Your task to perform on an android device: open app "McDonald's" Image 0: 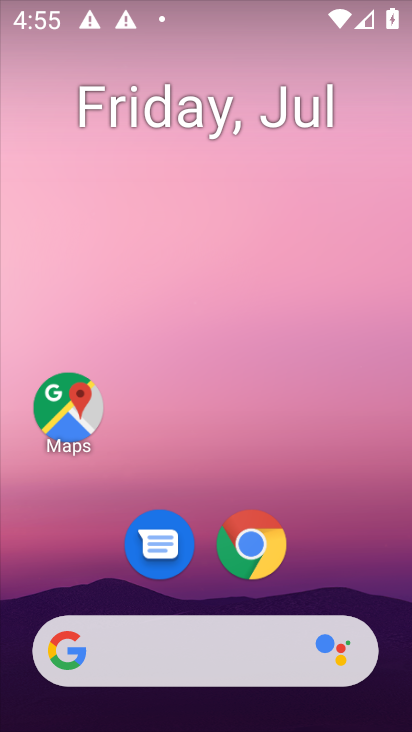
Step 0: drag from (160, 532) to (225, 28)
Your task to perform on an android device: open app "McDonald's" Image 1: 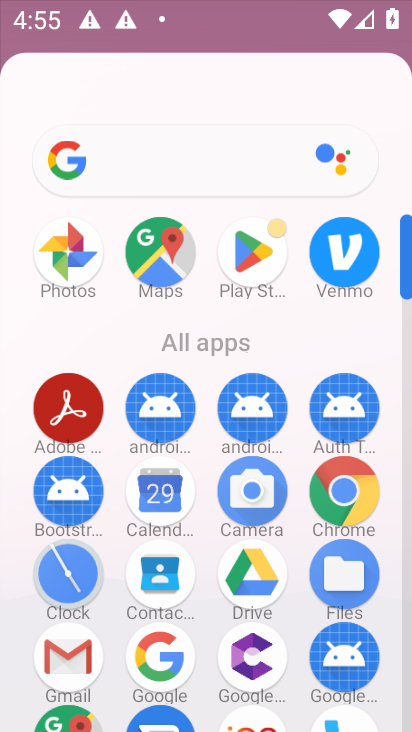
Step 1: drag from (236, 438) to (147, 24)
Your task to perform on an android device: open app "McDonald's" Image 2: 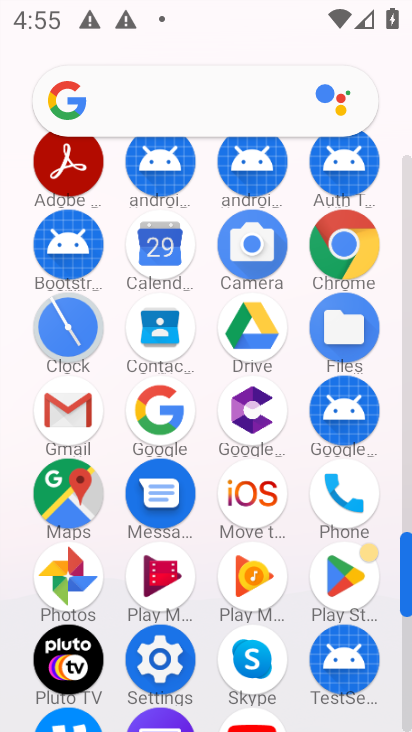
Step 2: drag from (118, 348) to (110, 107)
Your task to perform on an android device: open app "McDonald's" Image 3: 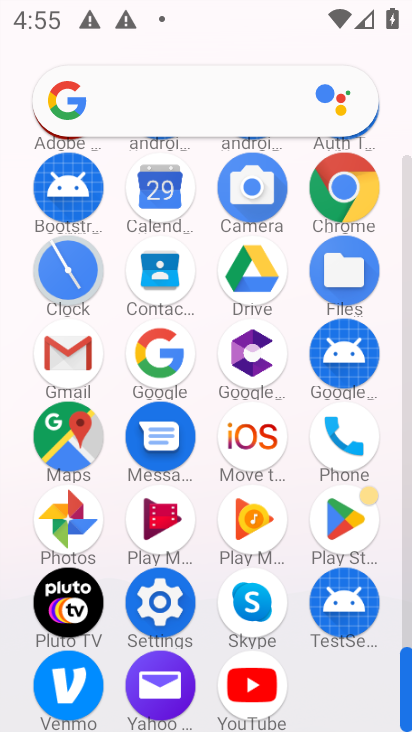
Step 3: drag from (214, 505) to (161, 5)
Your task to perform on an android device: open app "McDonald's" Image 4: 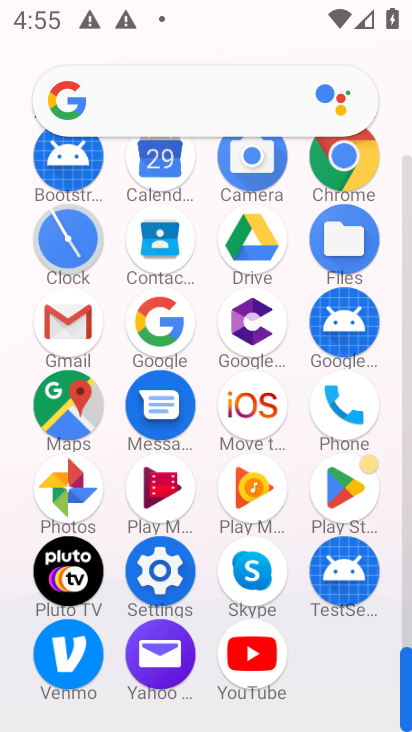
Step 4: drag from (171, 507) to (171, 149)
Your task to perform on an android device: open app "McDonald's" Image 5: 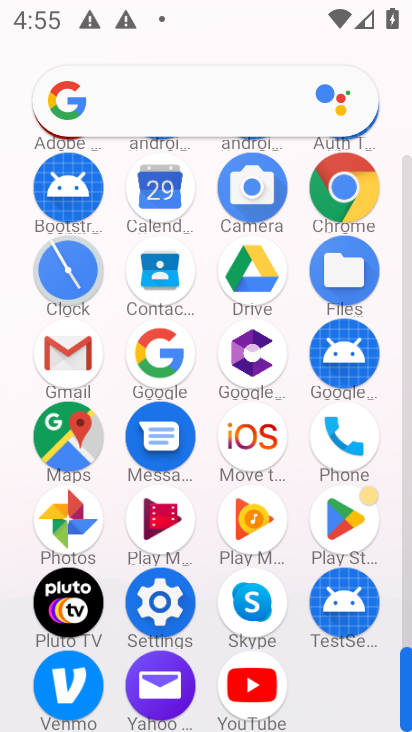
Step 5: drag from (188, 326) to (198, 699)
Your task to perform on an android device: open app "McDonald's" Image 6: 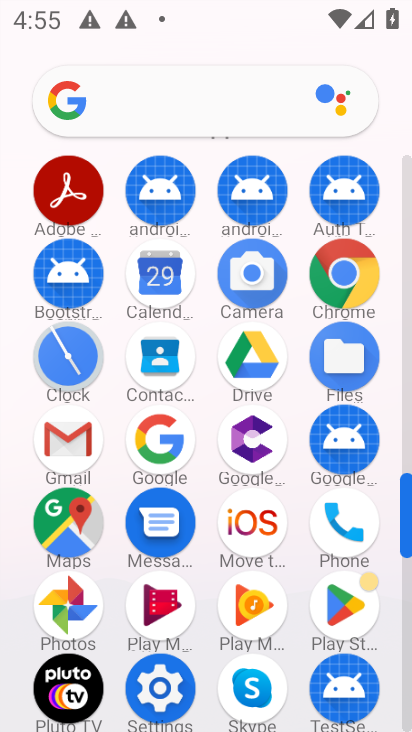
Step 6: drag from (215, 497) to (239, 670)
Your task to perform on an android device: open app "McDonald's" Image 7: 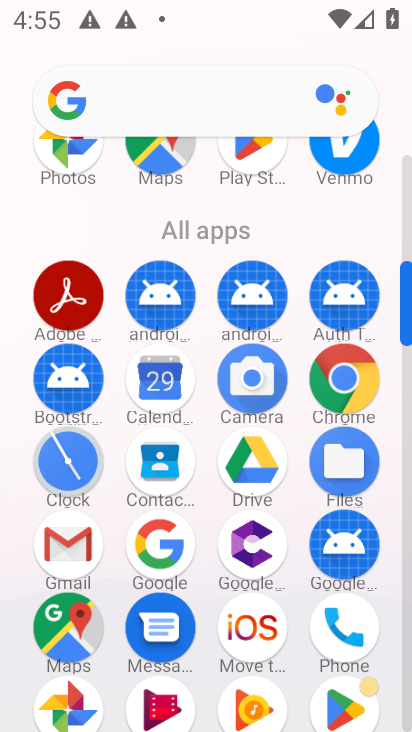
Step 7: drag from (186, 387) to (226, 616)
Your task to perform on an android device: open app "McDonald's" Image 8: 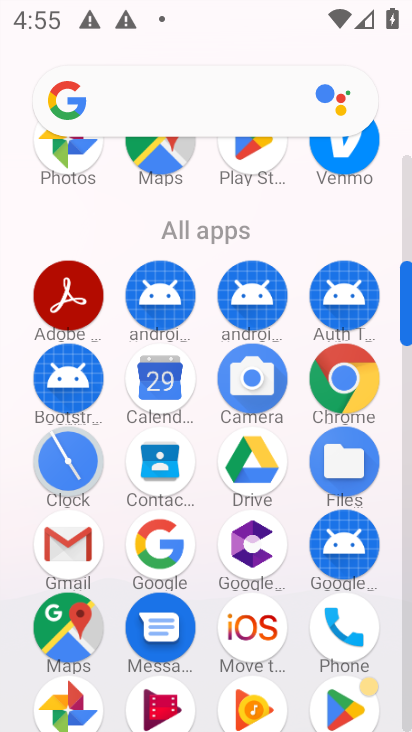
Step 8: drag from (180, 306) to (217, 686)
Your task to perform on an android device: open app "McDonald's" Image 9: 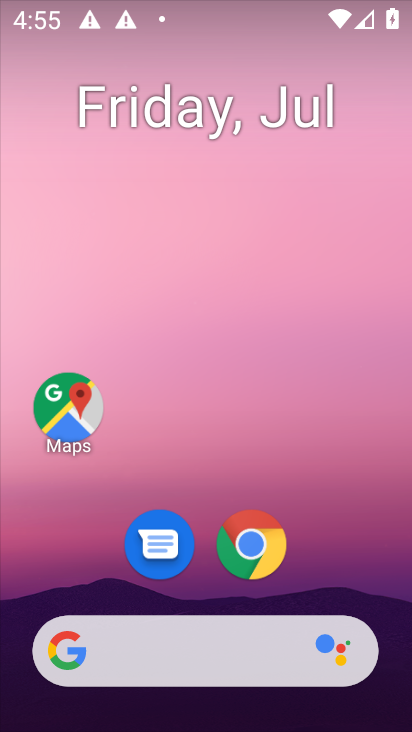
Step 9: drag from (215, 619) to (172, 20)
Your task to perform on an android device: open app "McDonald's" Image 10: 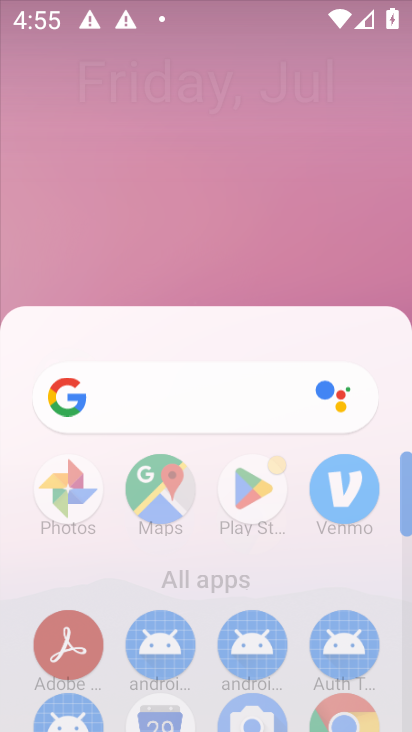
Step 10: drag from (235, 524) to (249, 47)
Your task to perform on an android device: open app "McDonald's" Image 11: 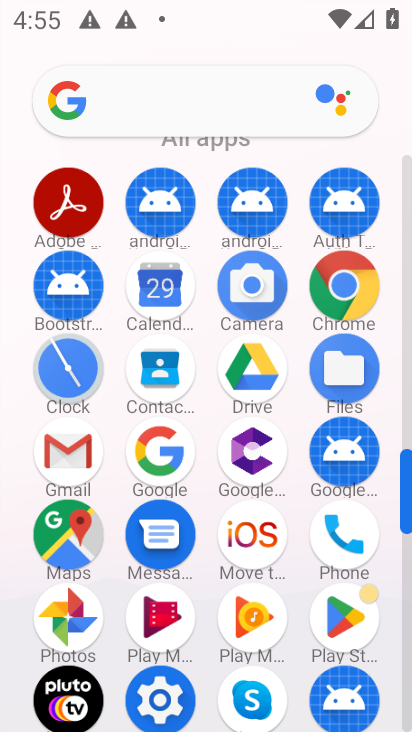
Step 11: drag from (183, 211) to (198, 496)
Your task to perform on an android device: open app "McDonald's" Image 12: 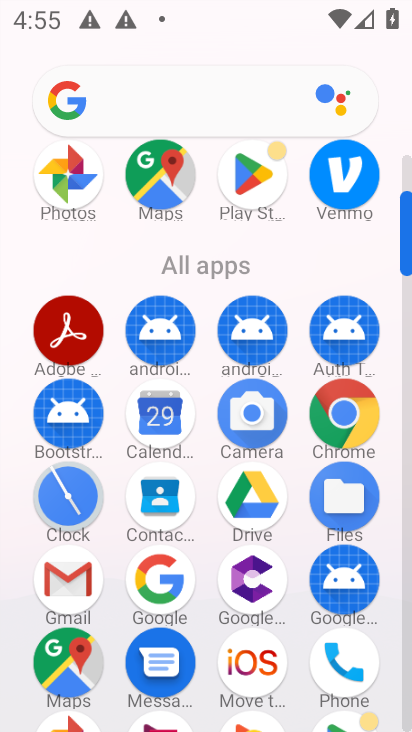
Step 12: drag from (165, 154) to (200, 470)
Your task to perform on an android device: open app "McDonald's" Image 13: 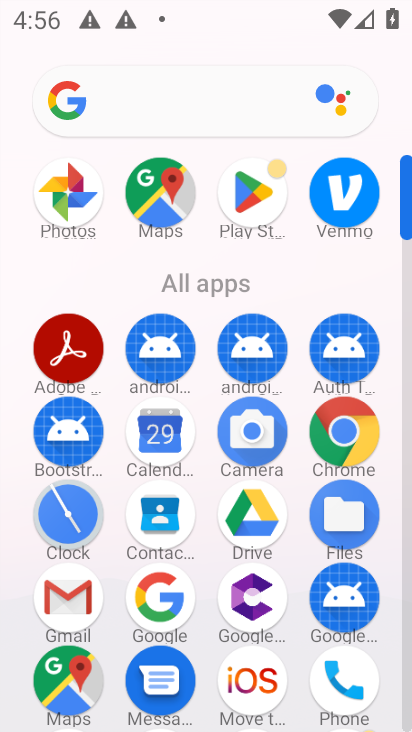
Step 13: click (247, 192)
Your task to perform on an android device: open app "McDonald's" Image 14: 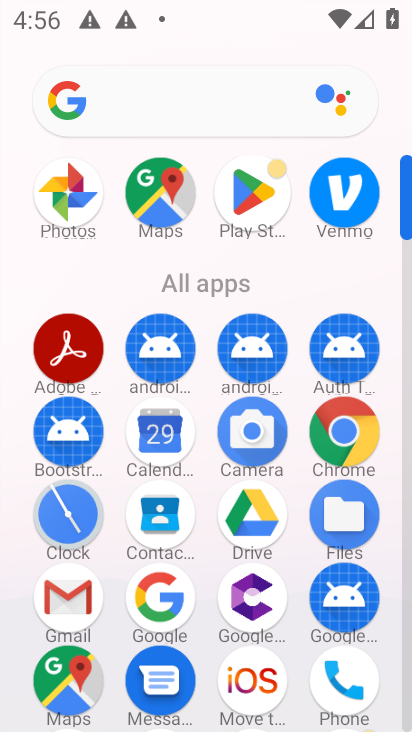
Step 14: click (246, 193)
Your task to perform on an android device: open app "McDonald's" Image 15: 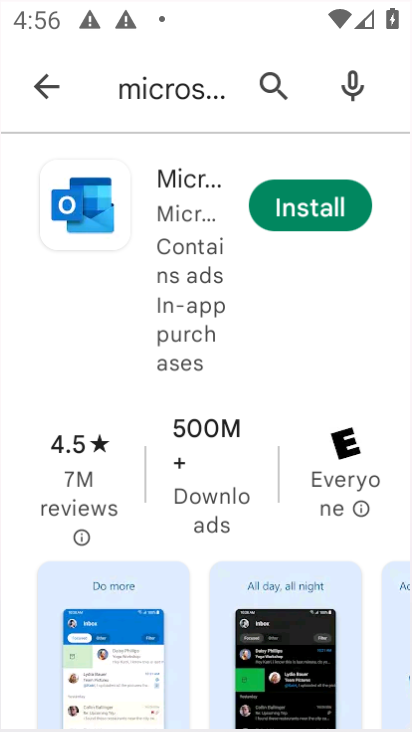
Step 15: click (240, 194)
Your task to perform on an android device: open app "McDonald's" Image 16: 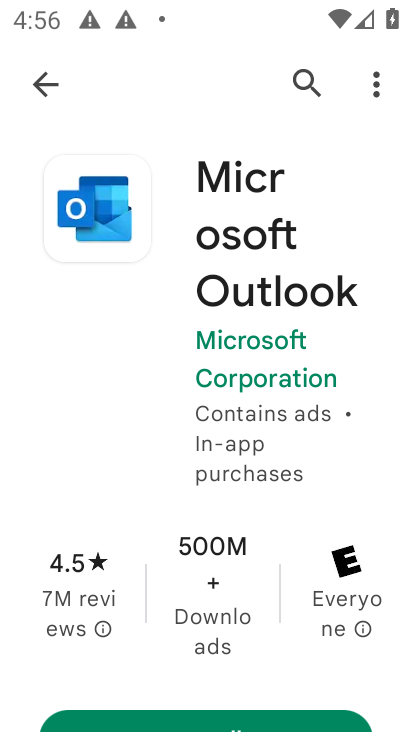
Step 16: click (42, 80)
Your task to perform on an android device: open app "McDonald's" Image 17: 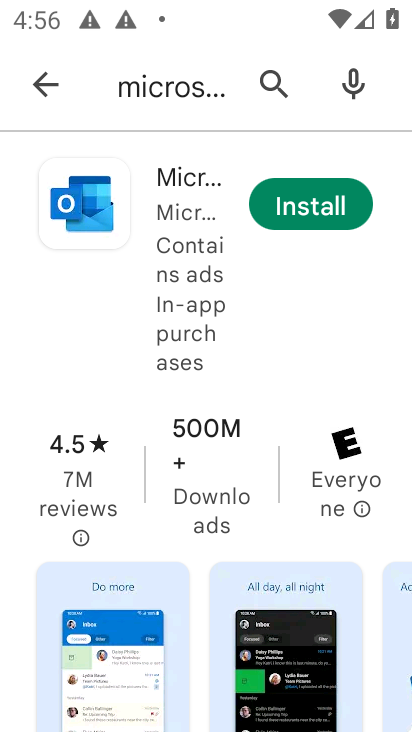
Step 17: click (48, 85)
Your task to perform on an android device: open app "McDonald's" Image 18: 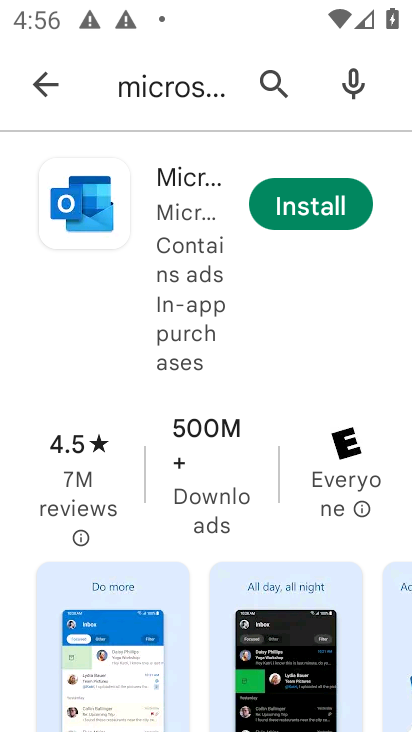
Step 18: click (40, 76)
Your task to perform on an android device: open app "McDonald's" Image 19: 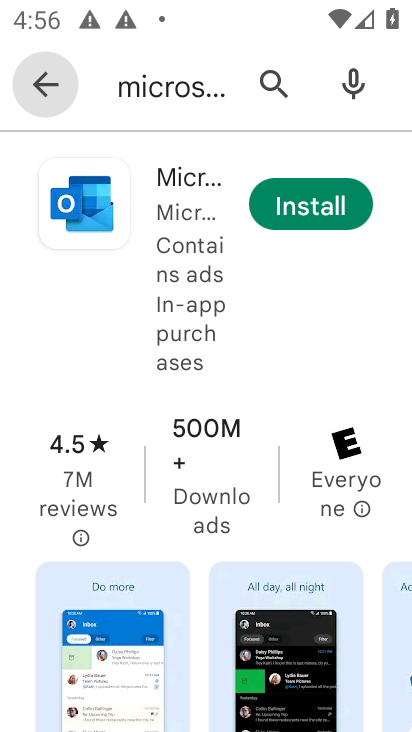
Step 19: click (40, 76)
Your task to perform on an android device: open app "McDonald's" Image 20: 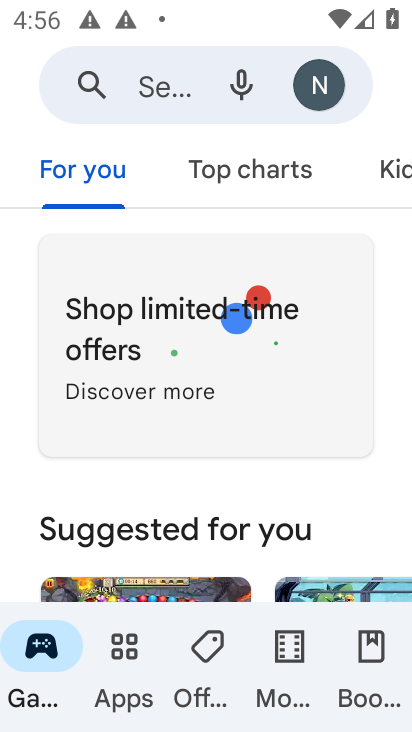
Step 20: click (174, 72)
Your task to perform on an android device: open app "McDonald's" Image 21: 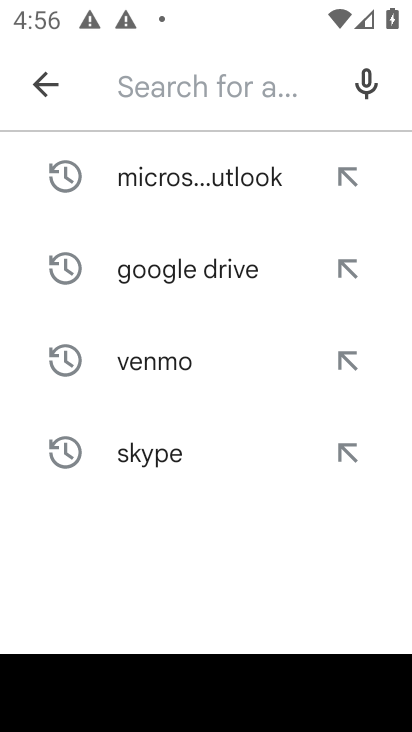
Step 21: click (175, 75)
Your task to perform on an android device: open app "McDonald's" Image 22: 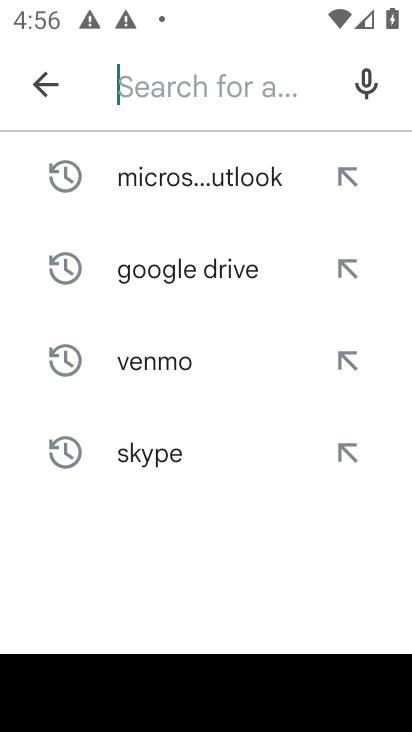
Step 22: click (160, 91)
Your task to perform on an android device: open app "McDonald's" Image 23: 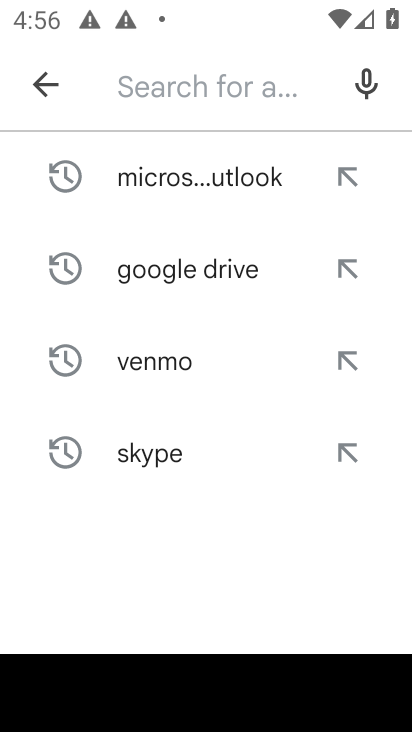
Step 23: click (160, 91)
Your task to perform on an android device: open app "McDonald's" Image 24: 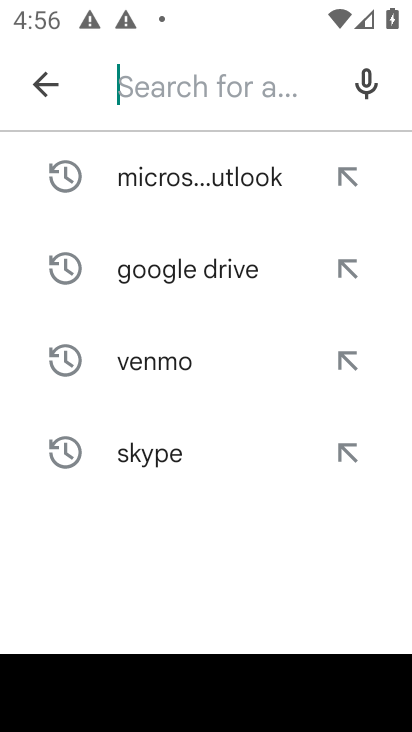
Step 24: click (159, 98)
Your task to perform on an android device: open app "McDonald's" Image 25: 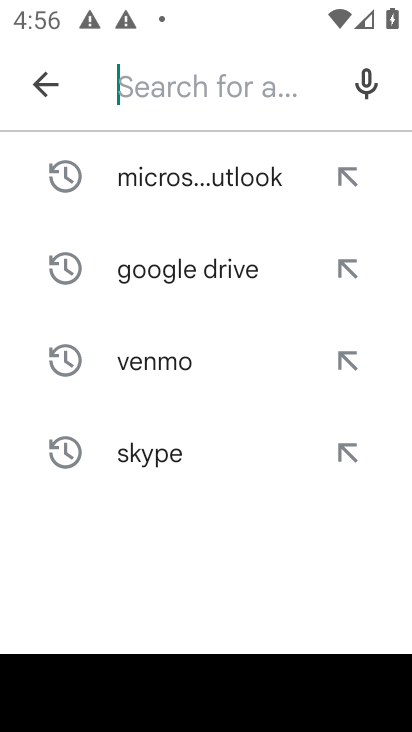
Step 25: type "McDonalds"
Your task to perform on an android device: open app "McDonald's" Image 26: 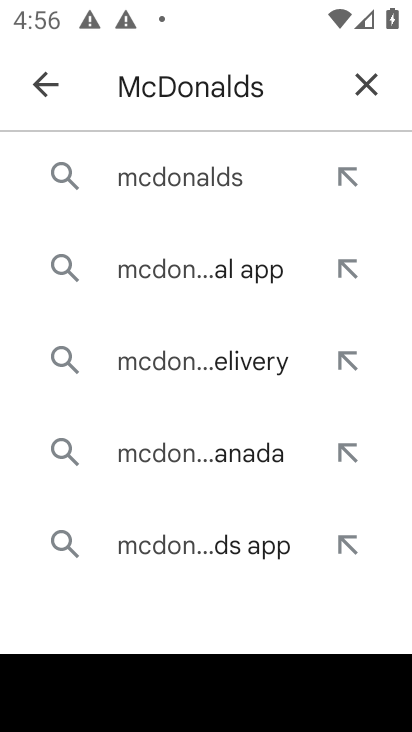
Step 26: click (175, 195)
Your task to perform on an android device: open app "McDonald's" Image 27: 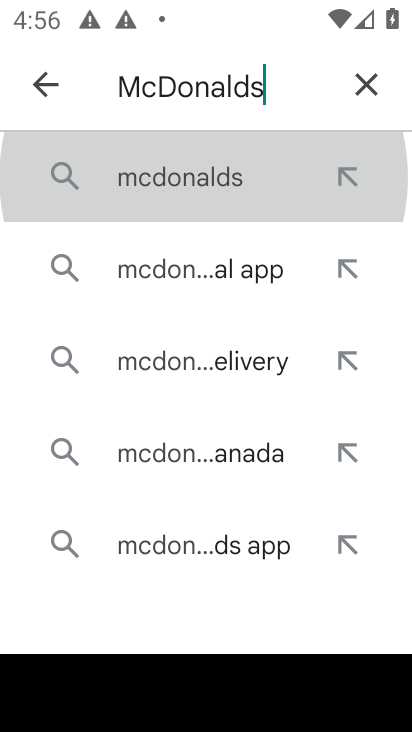
Step 27: click (175, 195)
Your task to perform on an android device: open app "McDonald's" Image 28: 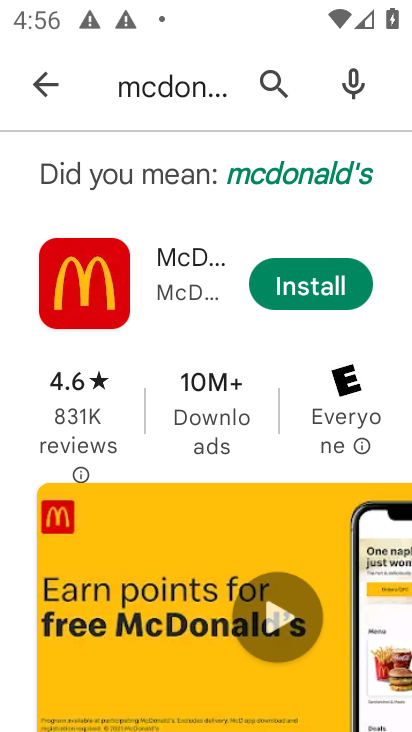
Step 28: click (306, 282)
Your task to perform on an android device: open app "McDonald's" Image 29: 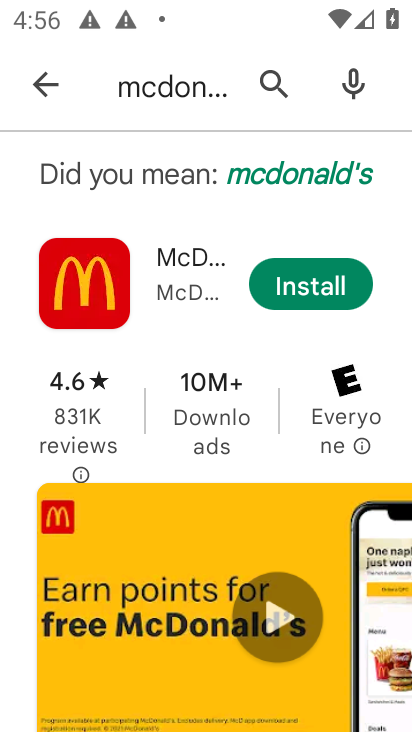
Step 29: click (306, 282)
Your task to perform on an android device: open app "McDonald's" Image 30: 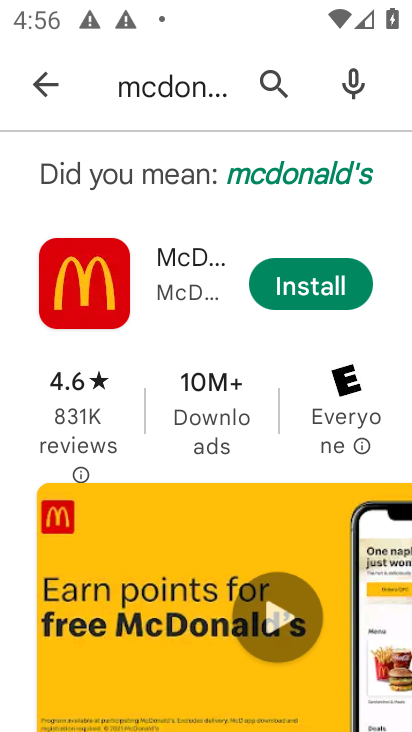
Step 30: click (306, 282)
Your task to perform on an android device: open app "McDonald's" Image 31: 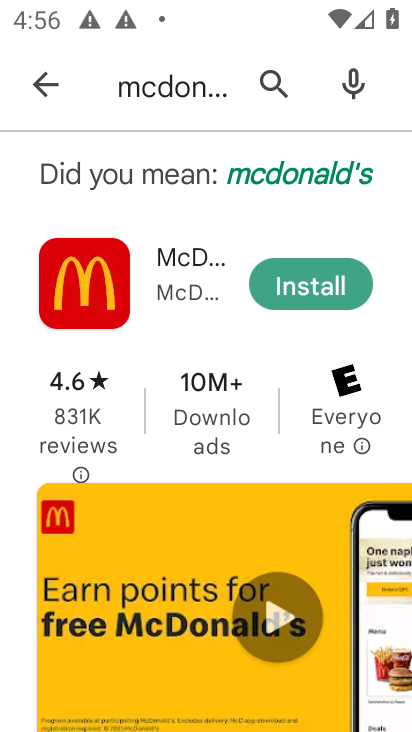
Step 31: click (306, 282)
Your task to perform on an android device: open app "McDonald's" Image 32: 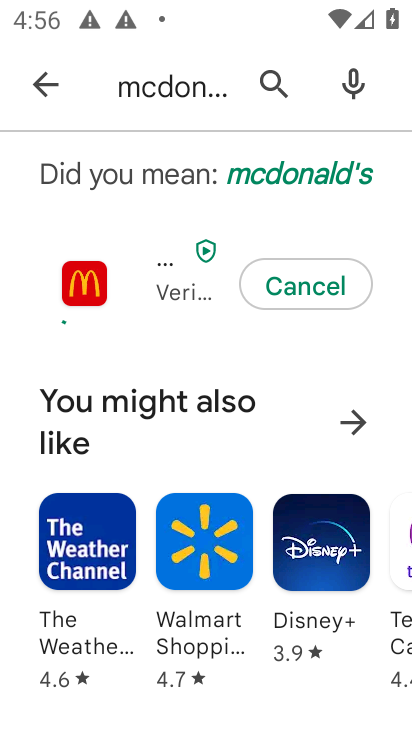
Step 32: click (306, 282)
Your task to perform on an android device: open app "McDonald's" Image 33: 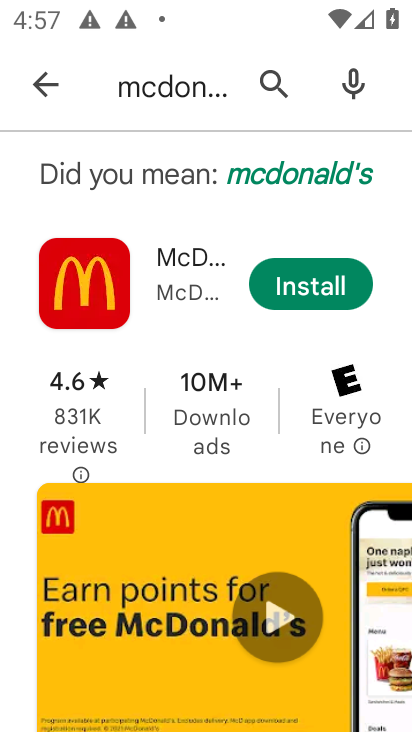
Step 33: click (327, 290)
Your task to perform on an android device: open app "McDonald's" Image 34: 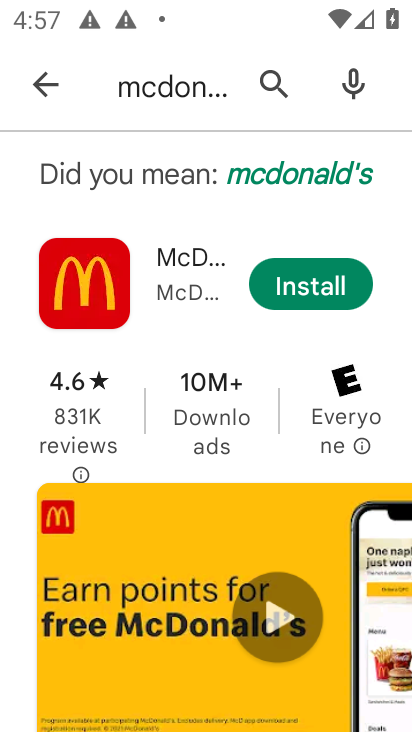
Step 34: click (327, 290)
Your task to perform on an android device: open app "McDonald's" Image 35: 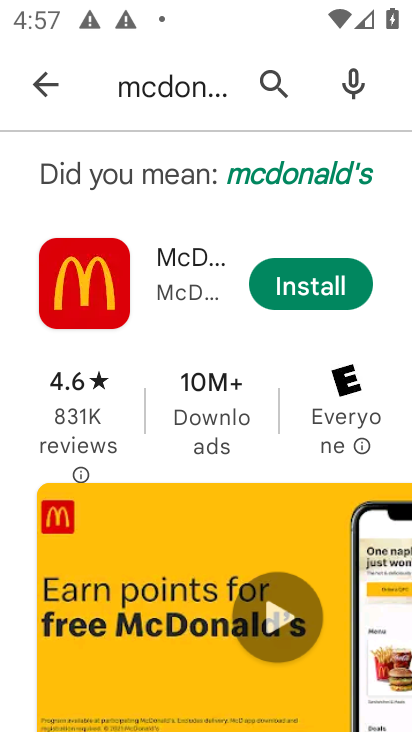
Step 35: task complete